Your task to perform on an android device: toggle notifications settings in the gmail app Image 0: 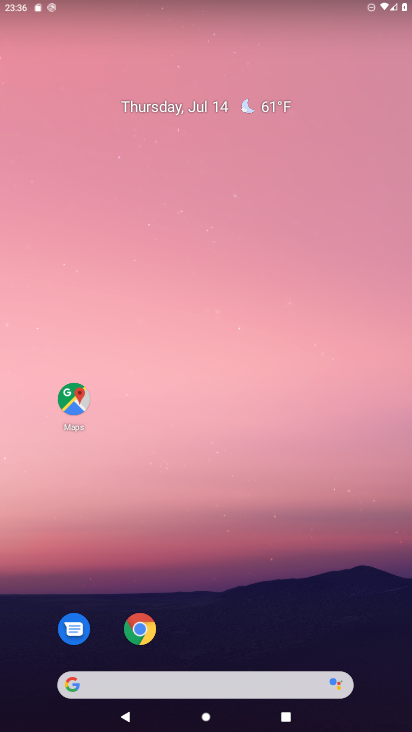
Step 0: drag from (203, 616) to (211, 142)
Your task to perform on an android device: toggle notifications settings in the gmail app Image 1: 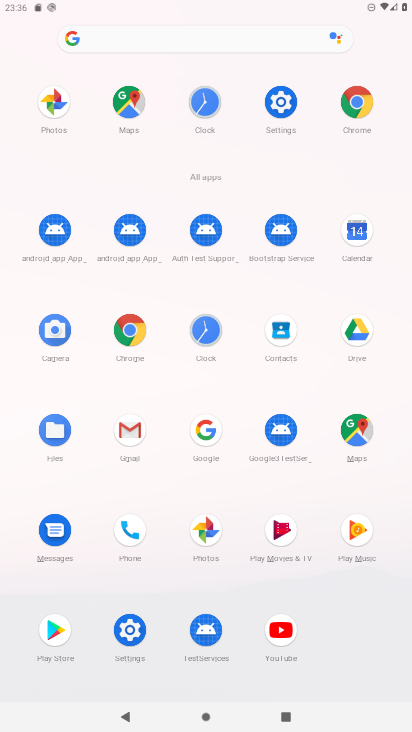
Step 1: click (284, 110)
Your task to perform on an android device: toggle notifications settings in the gmail app Image 2: 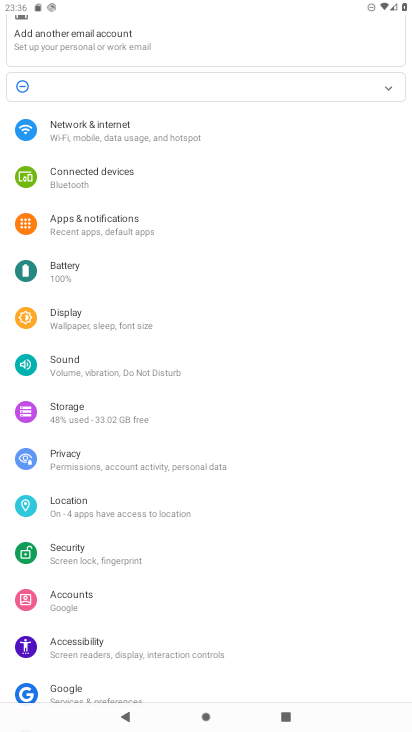
Step 2: click (134, 404)
Your task to perform on an android device: toggle notifications settings in the gmail app Image 3: 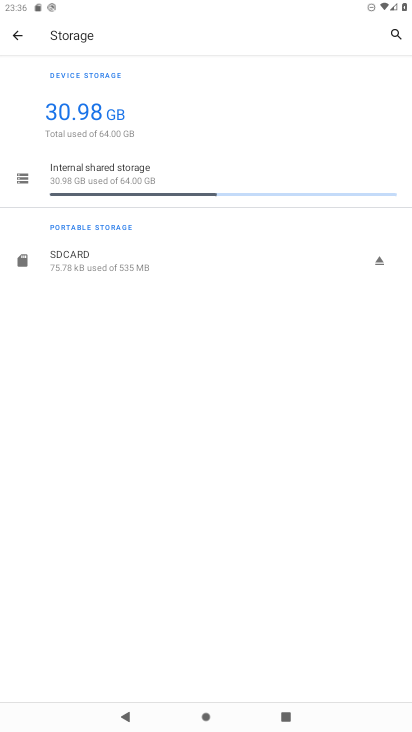
Step 3: task complete